Your task to perform on an android device: Open sound settings Image 0: 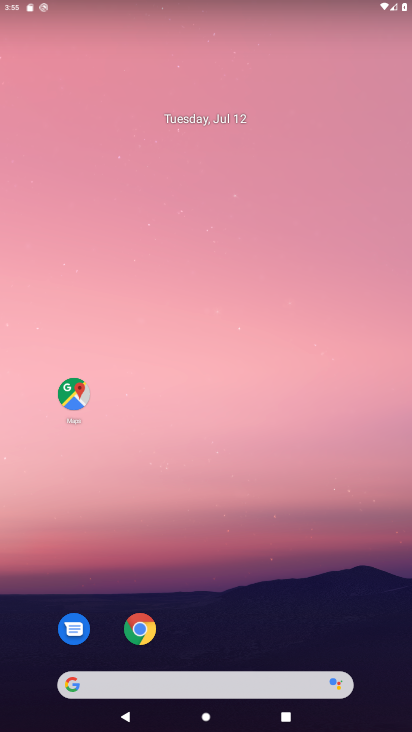
Step 0: drag from (257, 616) to (280, 60)
Your task to perform on an android device: Open sound settings Image 1: 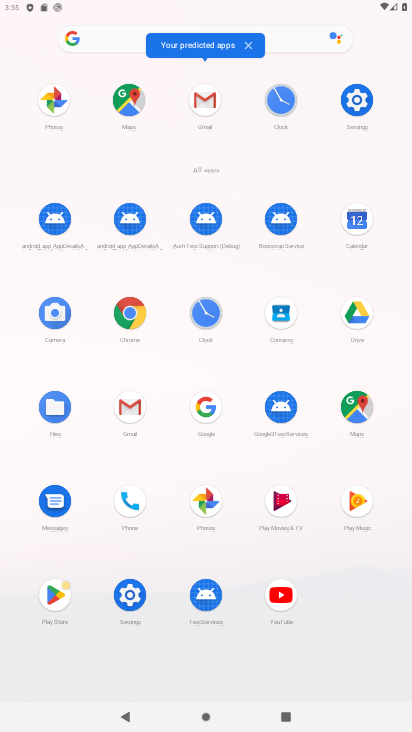
Step 1: click (147, 589)
Your task to perform on an android device: Open sound settings Image 2: 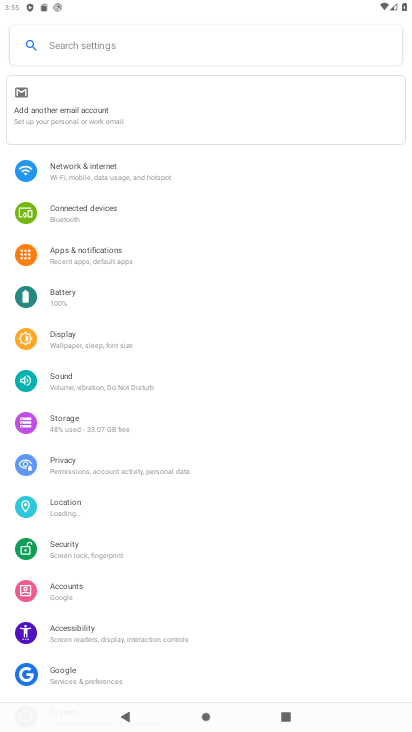
Step 2: click (86, 383)
Your task to perform on an android device: Open sound settings Image 3: 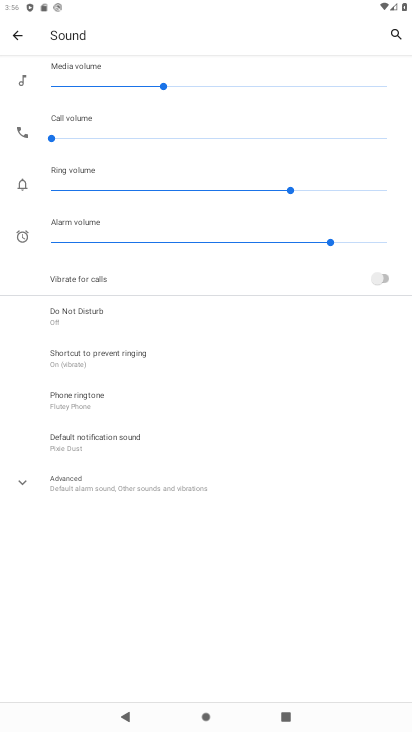
Step 3: task complete